Your task to perform on an android device: turn off wifi Image 0: 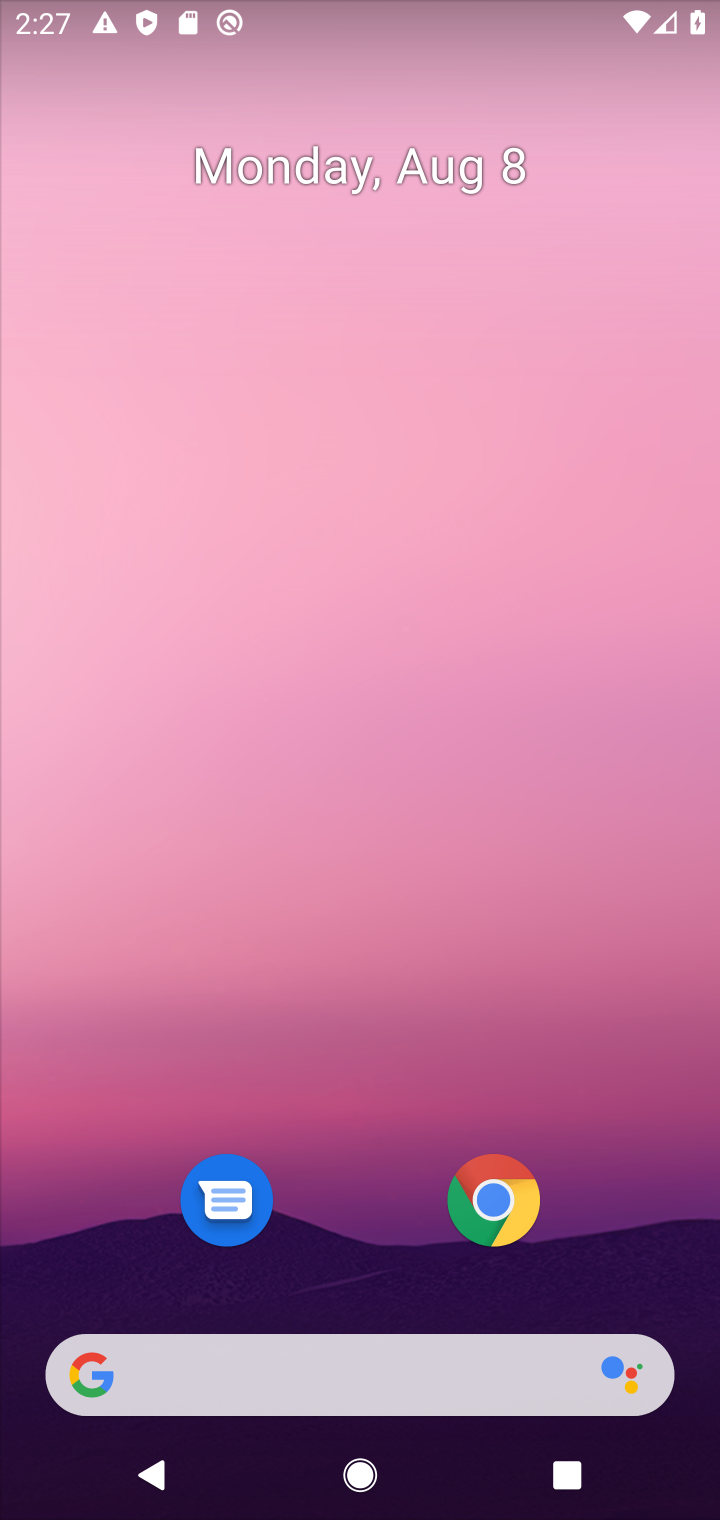
Step 0: drag from (180, 162) to (339, 1002)
Your task to perform on an android device: turn off wifi Image 1: 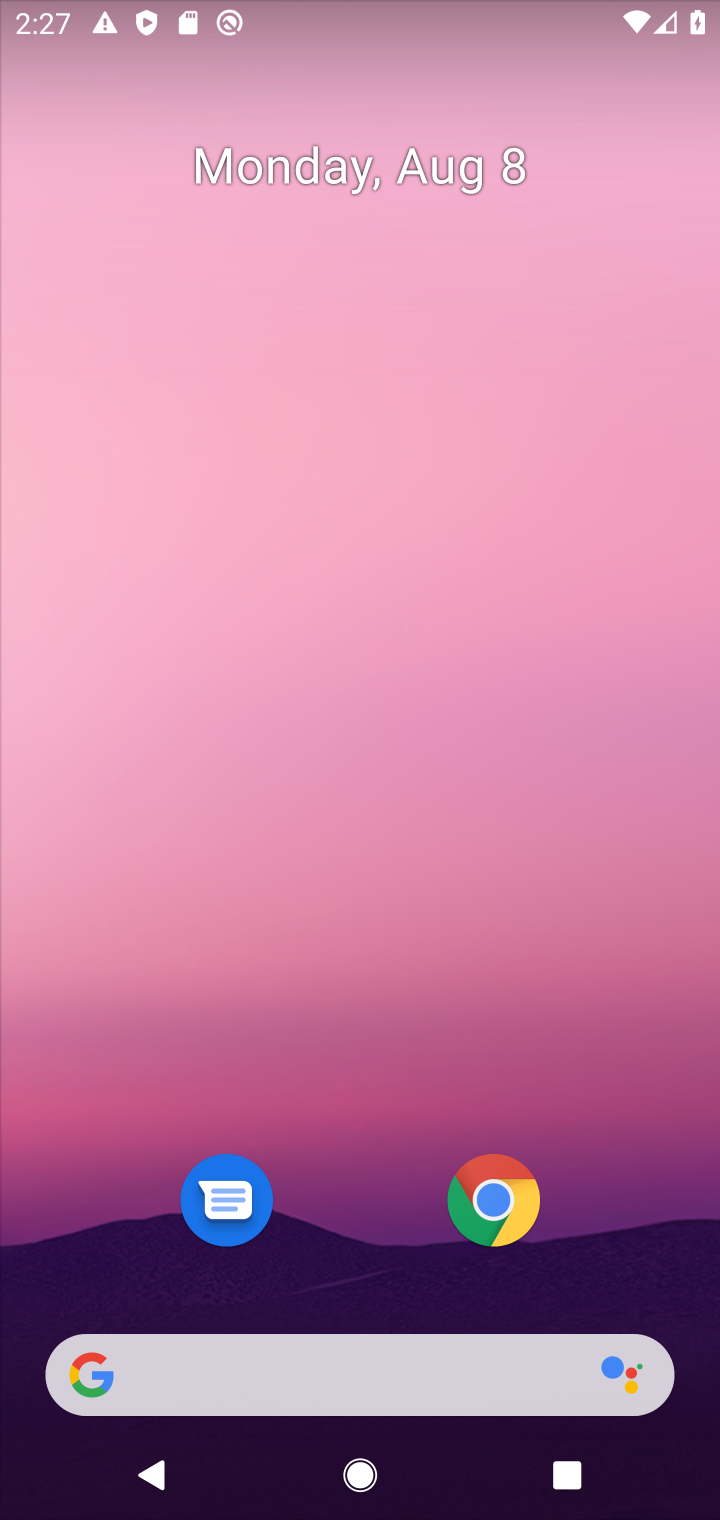
Step 1: drag from (168, 9) to (365, 1090)
Your task to perform on an android device: turn off wifi Image 2: 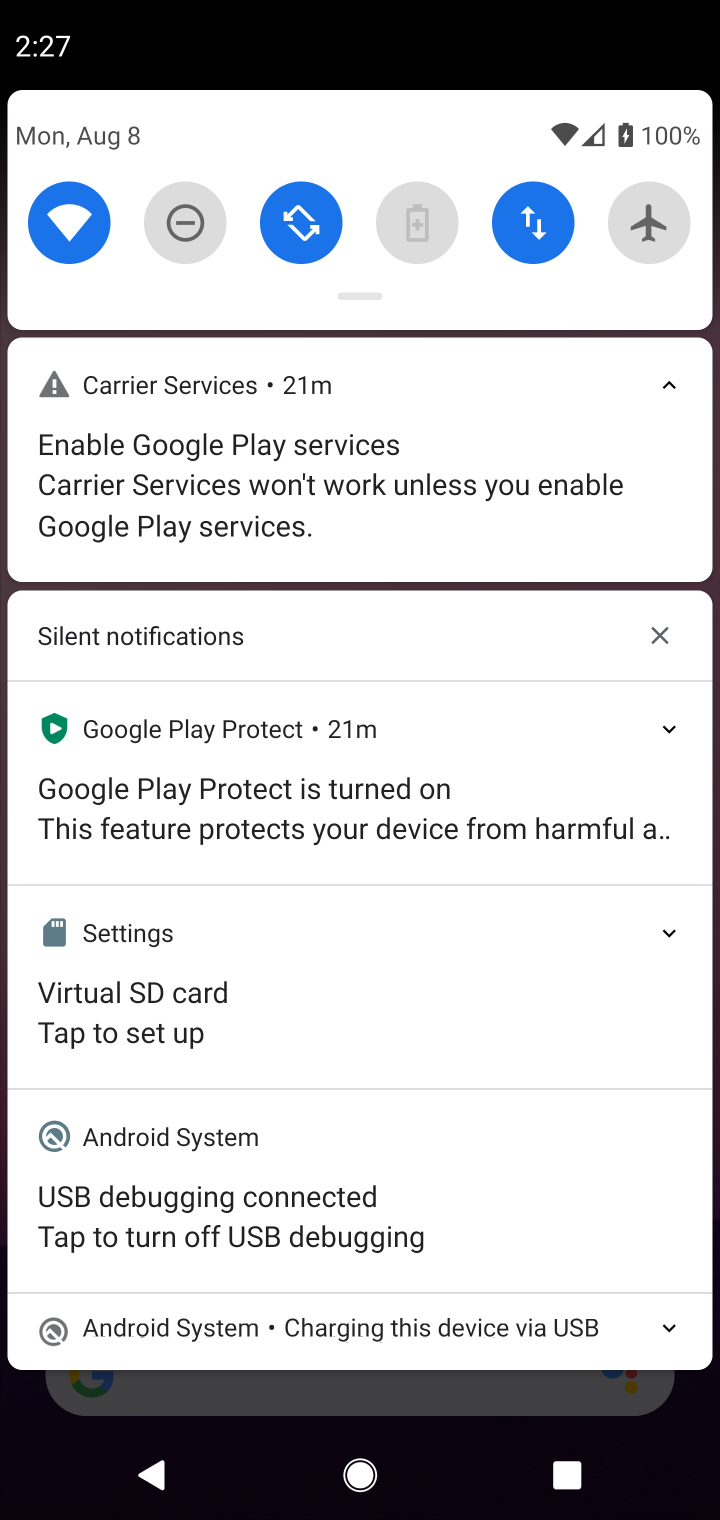
Step 2: click (67, 226)
Your task to perform on an android device: turn off wifi Image 3: 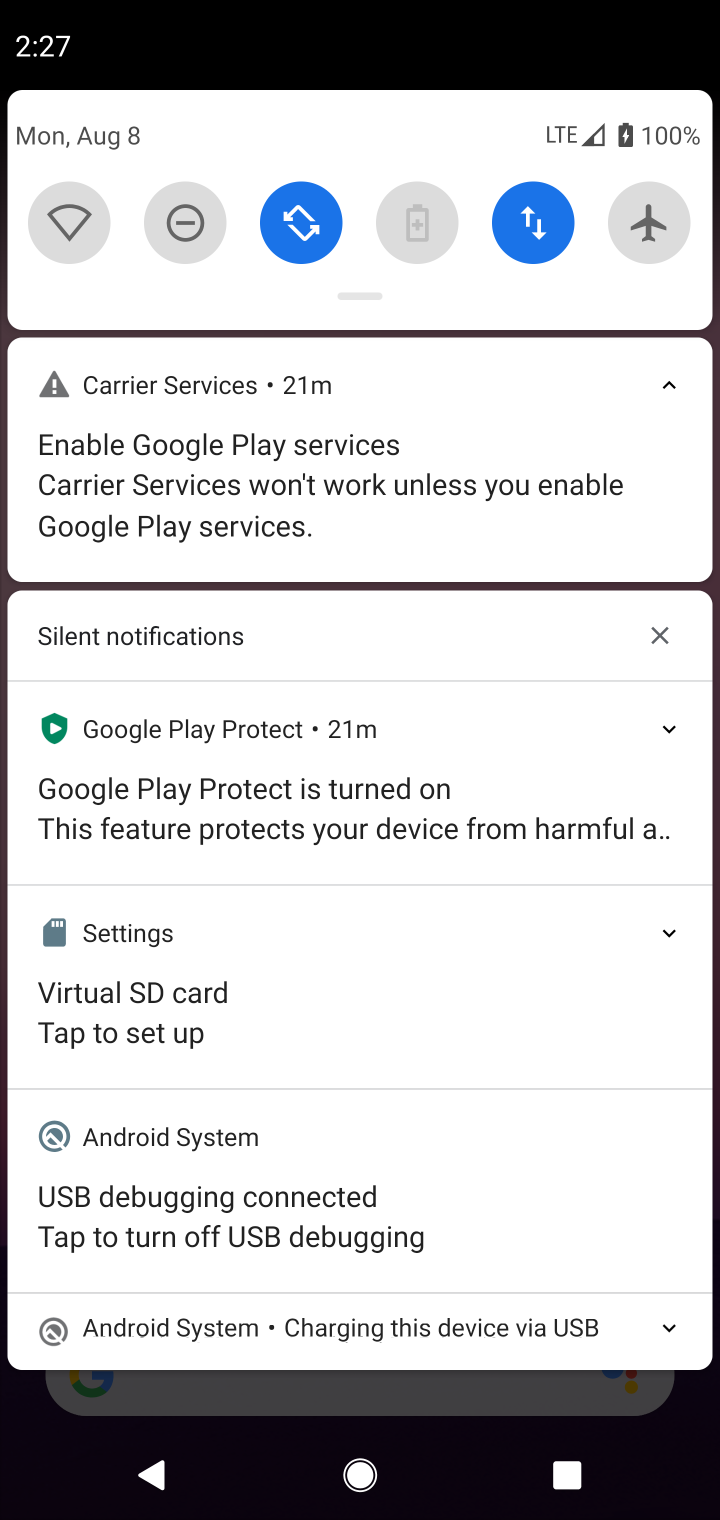
Step 3: task complete